Your task to perform on an android device: delete a single message in the gmail app Image 0: 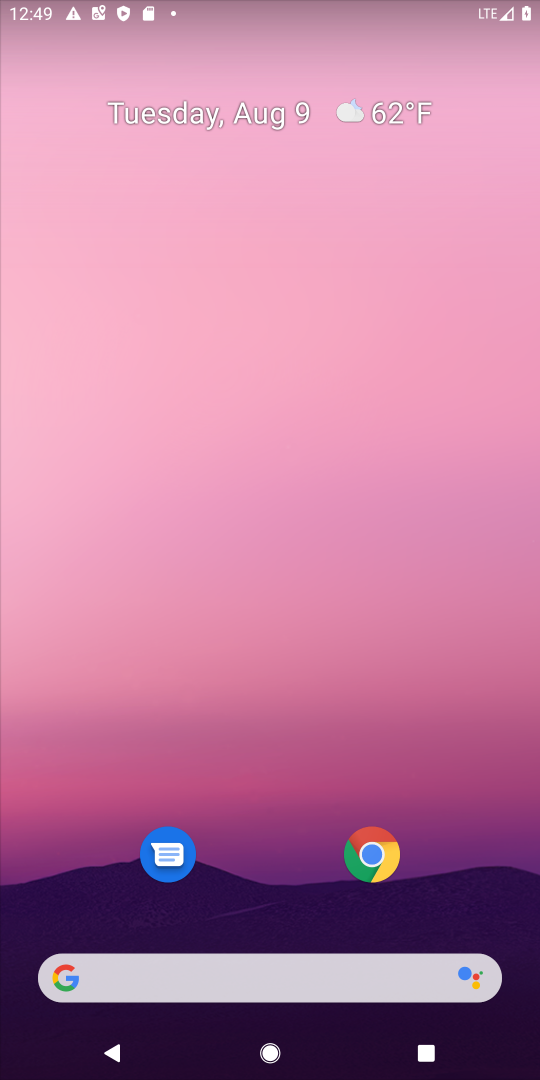
Step 0: drag from (250, 911) to (333, 186)
Your task to perform on an android device: delete a single message in the gmail app Image 1: 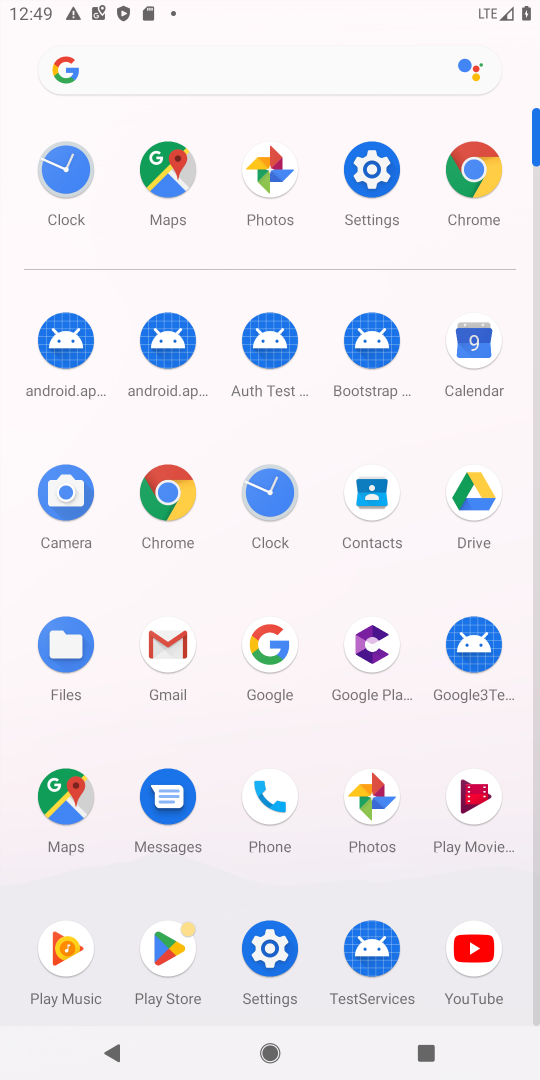
Step 1: click (158, 636)
Your task to perform on an android device: delete a single message in the gmail app Image 2: 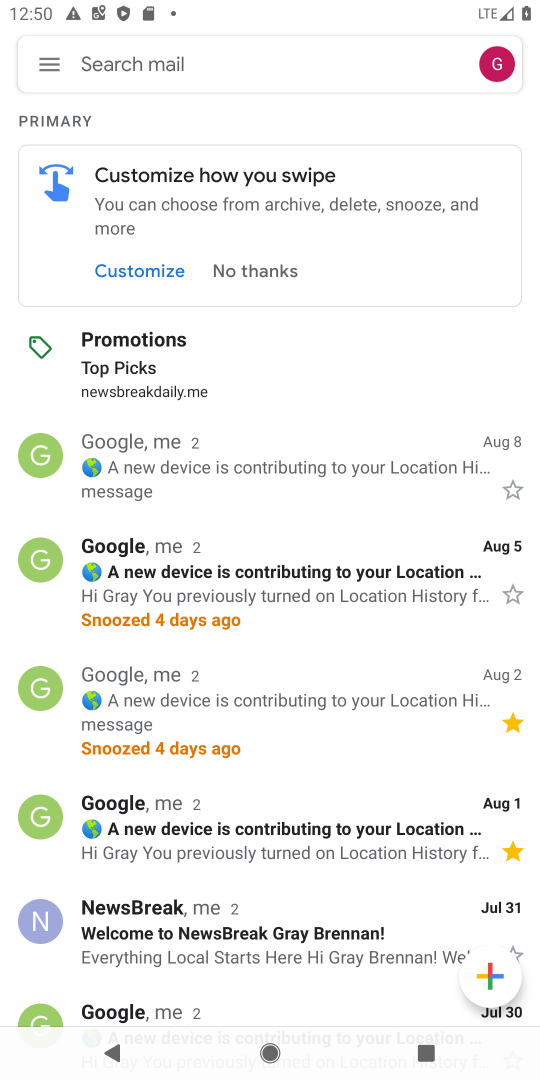
Step 2: click (235, 477)
Your task to perform on an android device: delete a single message in the gmail app Image 3: 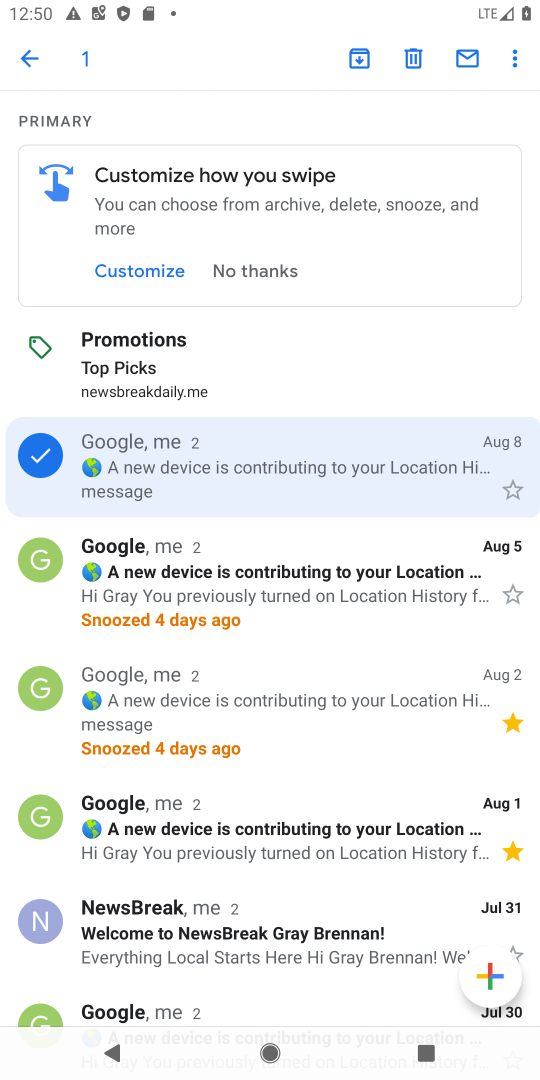
Step 3: click (418, 50)
Your task to perform on an android device: delete a single message in the gmail app Image 4: 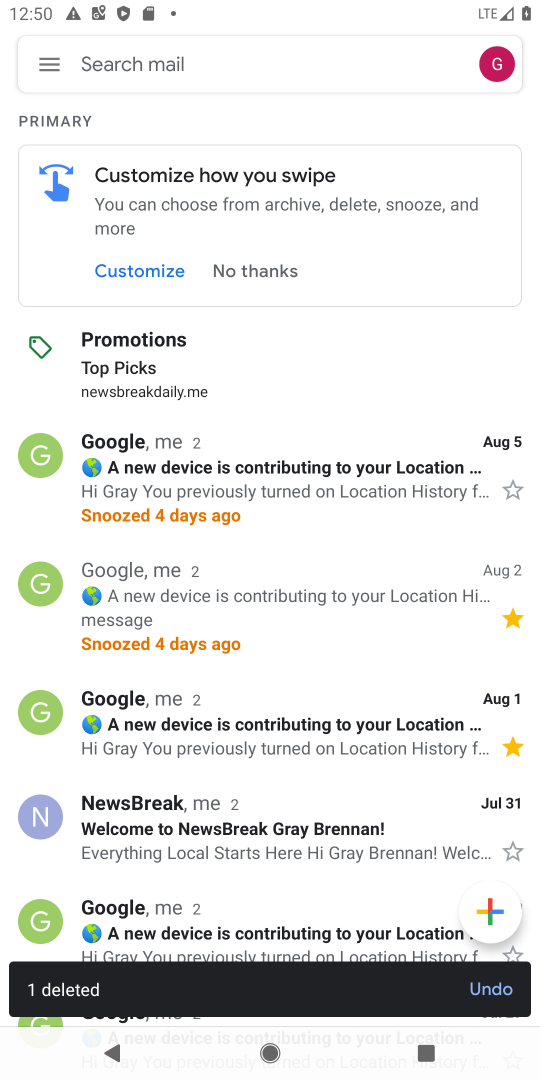
Step 4: task complete